Your task to perform on an android device: Go to notification settings Image 0: 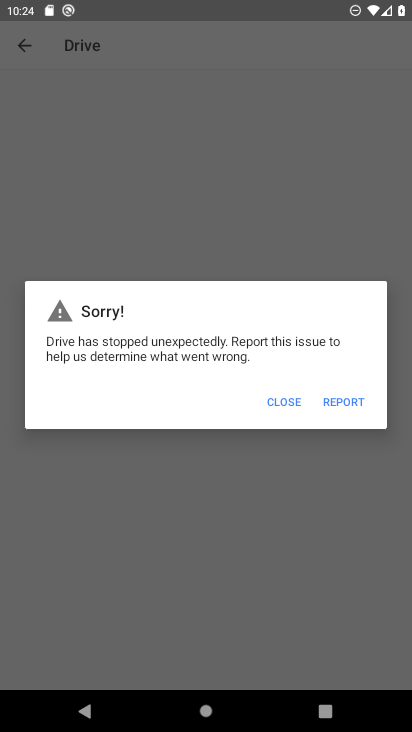
Step 0: press home button
Your task to perform on an android device: Go to notification settings Image 1: 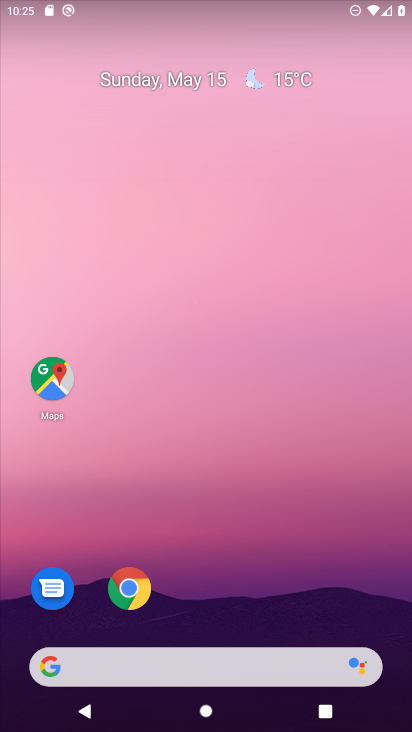
Step 1: drag from (228, 518) to (308, 38)
Your task to perform on an android device: Go to notification settings Image 2: 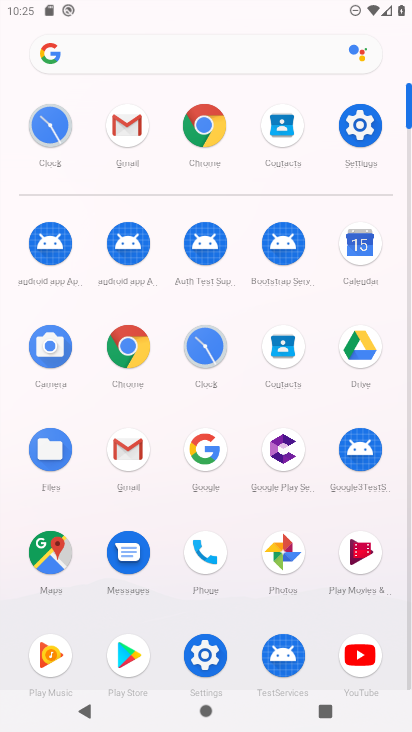
Step 2: click (373, 142)
Your task to perform on an android device: Go to notification settings Image 3: 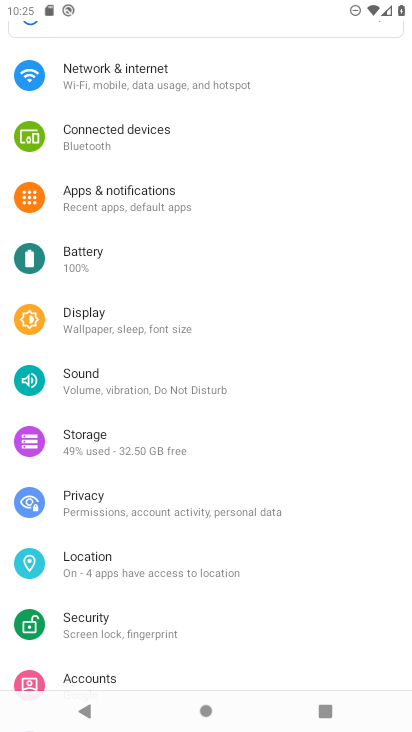
Step 3: click (176, 203)
Your task to perform on an android device: Go to notification settings Image 4: 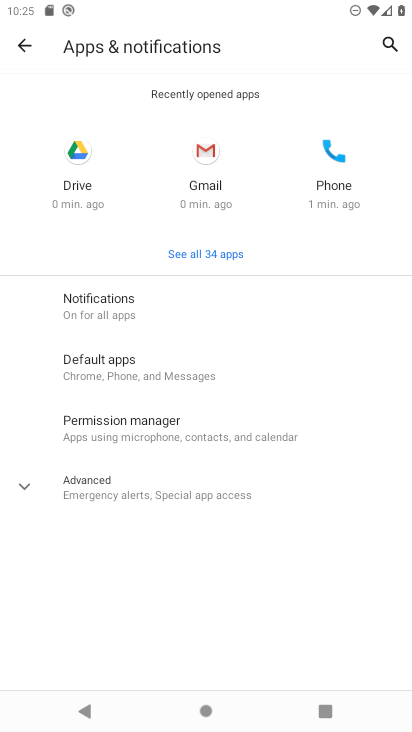
Step 4: click (117, 313)
Your task to perform on an android device: Go to notification settings Image 5: 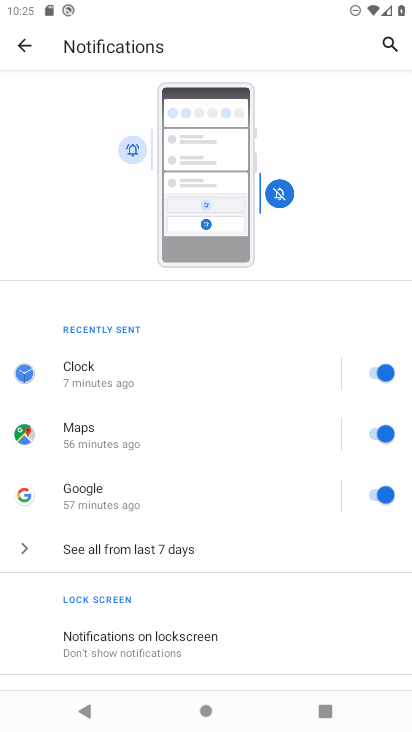
Step 5: task complete